Your task to perform on an android device: Search for razer huntsman on ebay.com, select the first entry, and add it to the cart. Image 0: 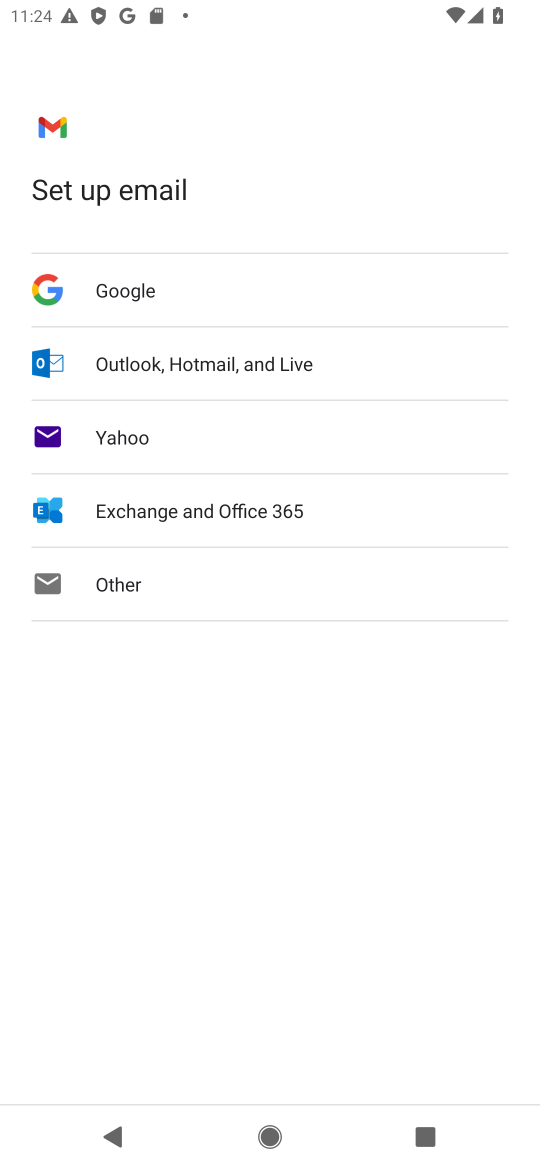
Step 0: press home button
Your task to perform on an android device: Search for razer huntsman on ebay.com, select the first entry, and add it to the cart. Image 1: 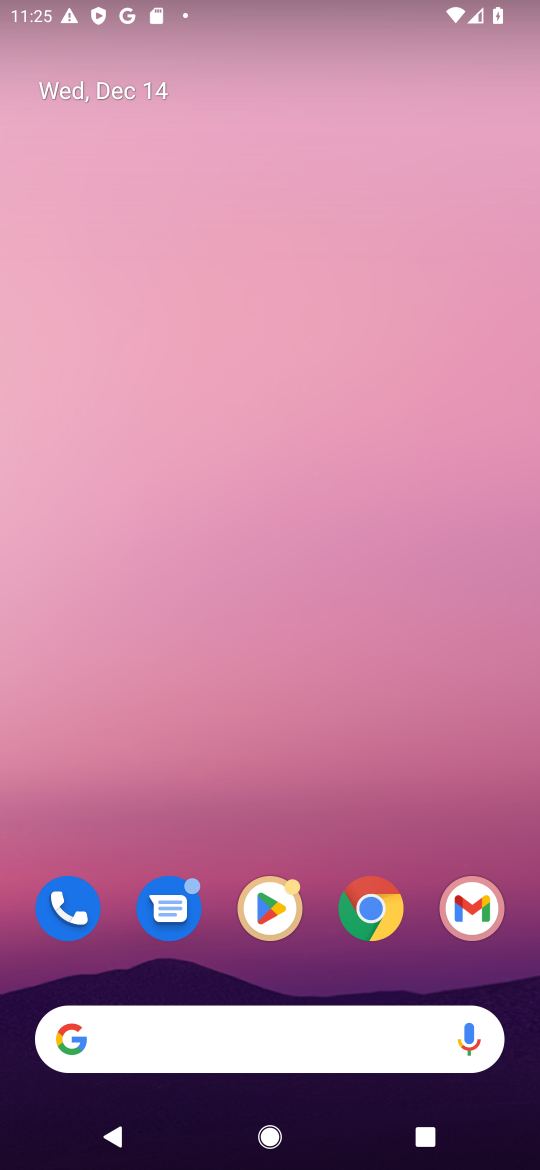
Step 1: click (382, 915)
Your task to perform on an android device: Search for razer huntsman on ebay.com, select the first entry, and add it to the cart. Image 2: 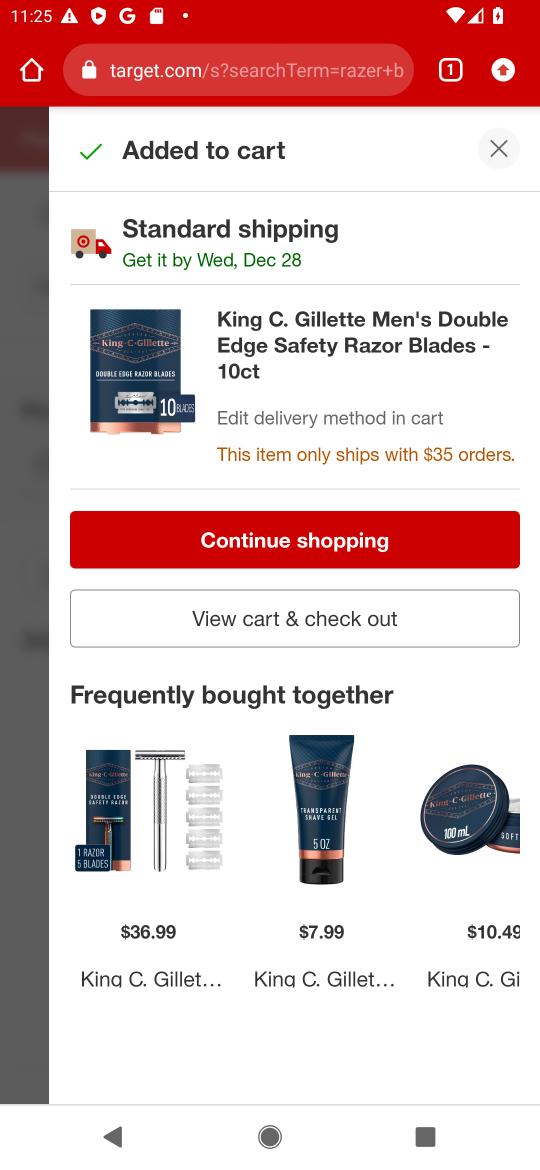
Step 2: click (252, 63)
Your task to perform on an android device: Search for razer huntsman on ebay.com, select the first entry, and add it to the cart. Image 3: 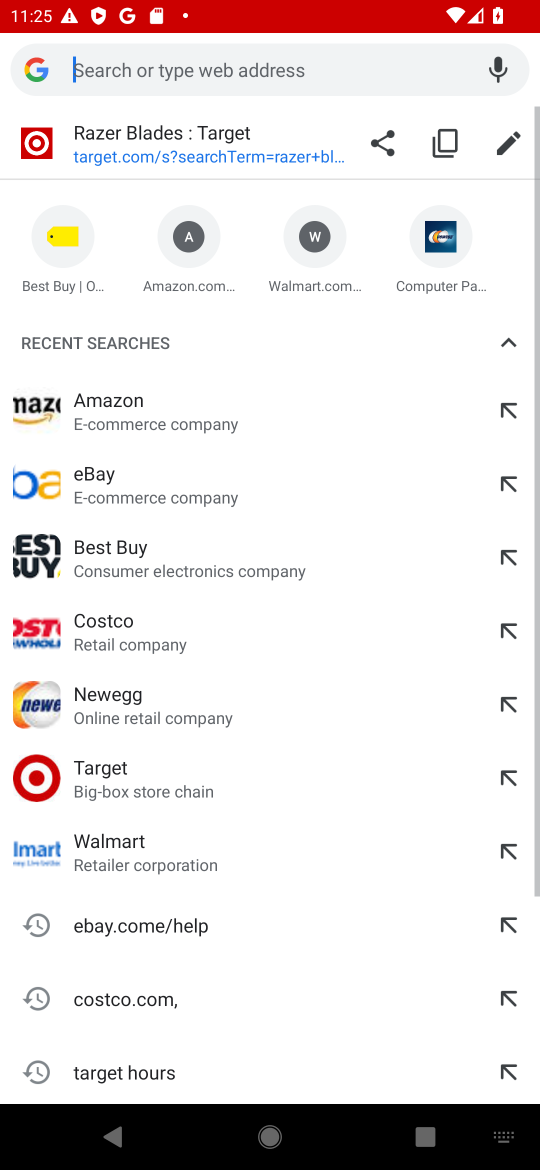
Step 3: click (148, 503)
Your task to perform on an android device: Search for razer huntsman on ebay.com, select the first entry, and add it to the cart. Image 4: 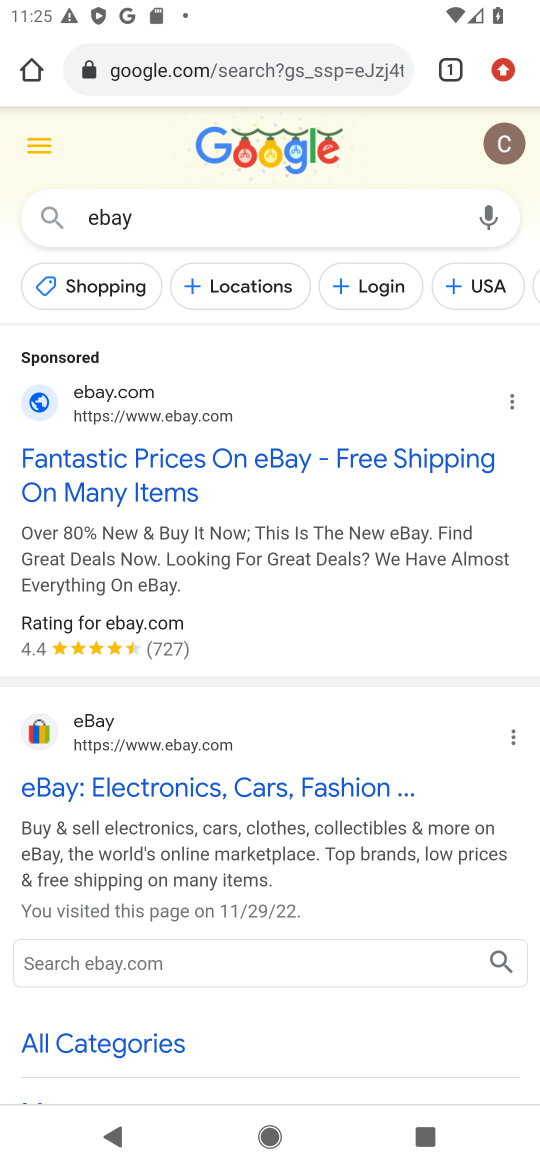
Step 4: click (83, 471)
Your task to perform on an android device: Search for razer huntsman on ebay.com, select the first entry, and add it to the cart. Image 5: 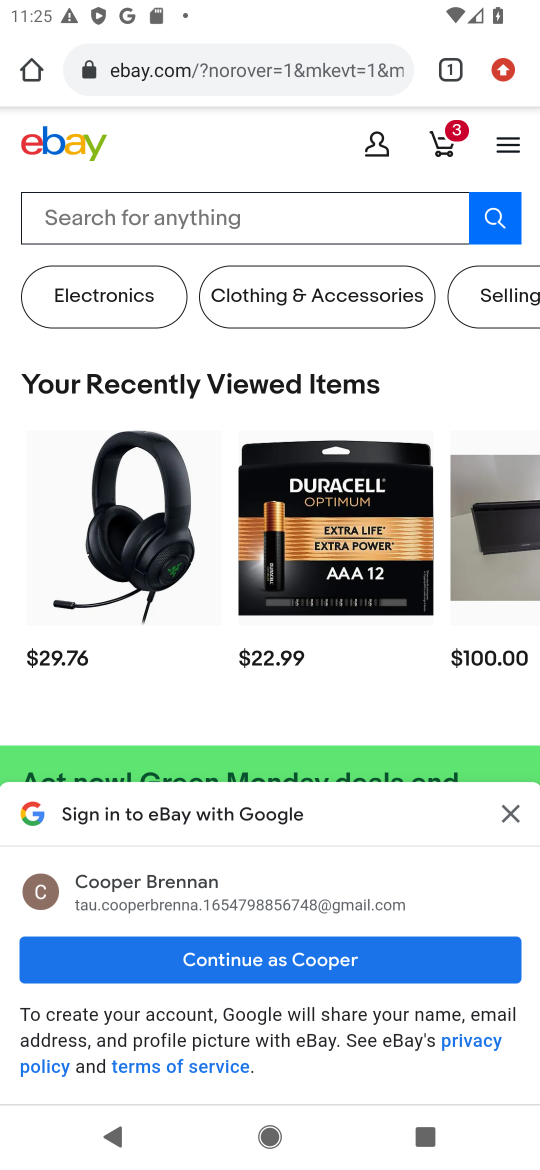
Step 5: click (232, 237)
Your task to perform on an android device: Search for razer huntsman on ebay.com, select the first entry, and add it to the cart. Image 6: 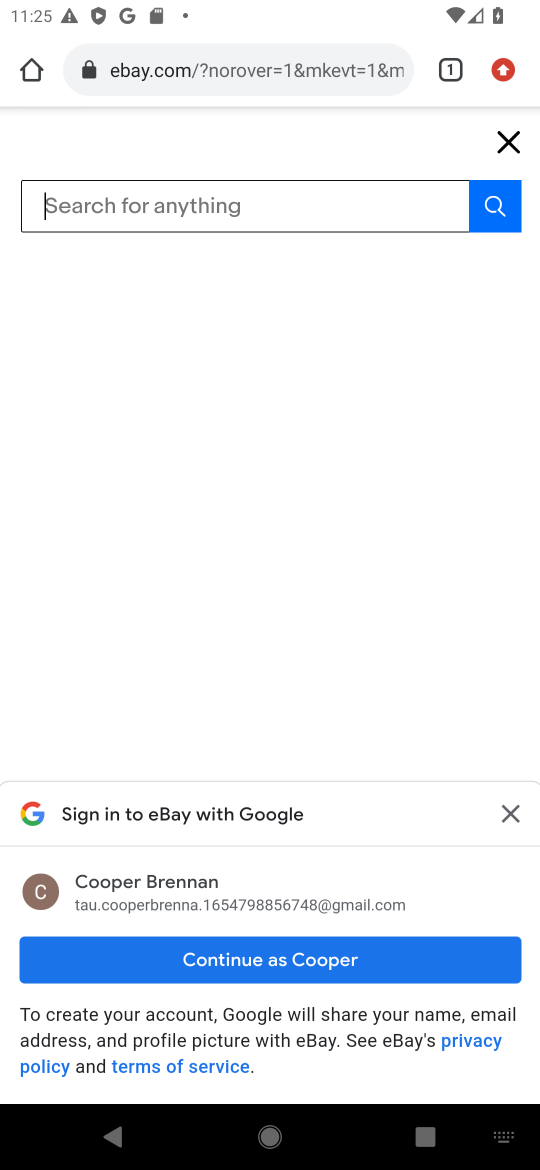
Step 6: type "razer huntsman"
Your task to perform on an android device: Search for razer huntsman on ebay.com, select the first entry, and add it to the cart. Image 7: 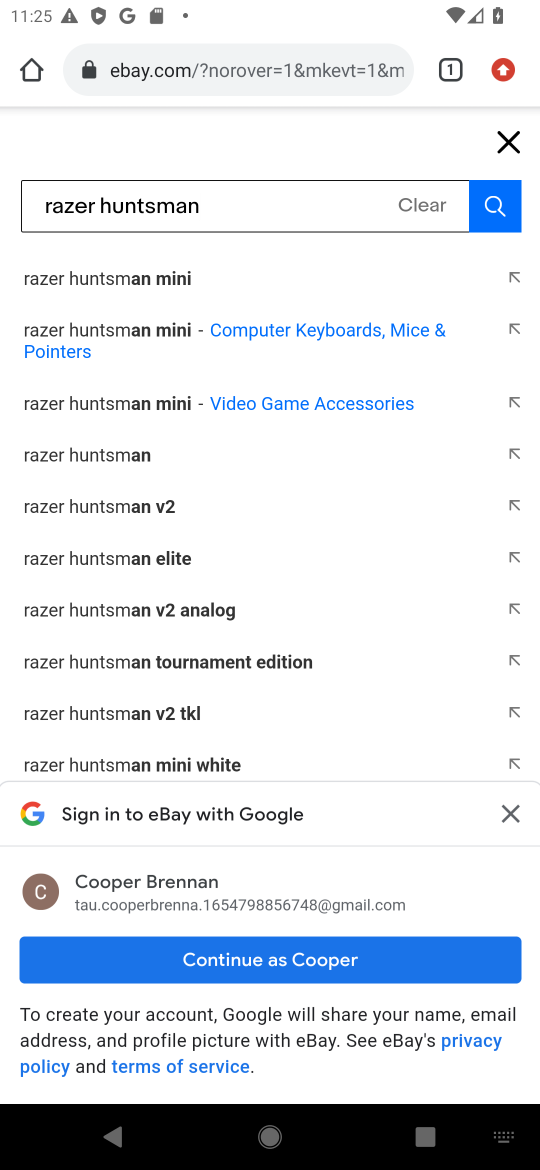
Step 7: click (491, 223)
Your task to perform on an android device: Search for razer huntsman on ebay.com, select the first entry, and add it to the cart. Image 8: 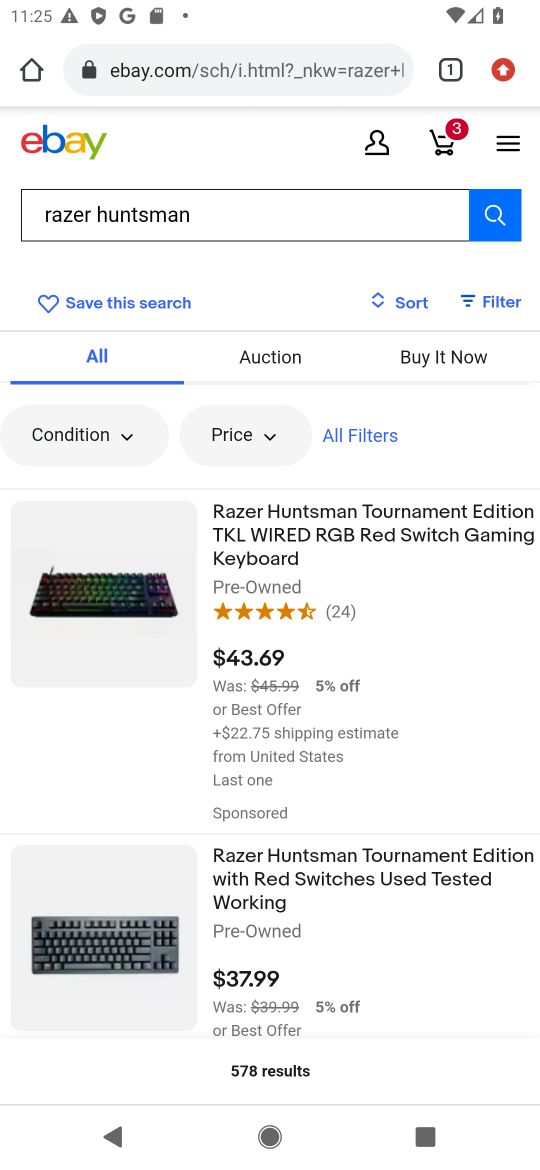
Step 8: click (409, 546)
Your task to perform on an android device: Search for razer huntsman on ebay.com, select the first entry, and add it to the cart. Image 9: 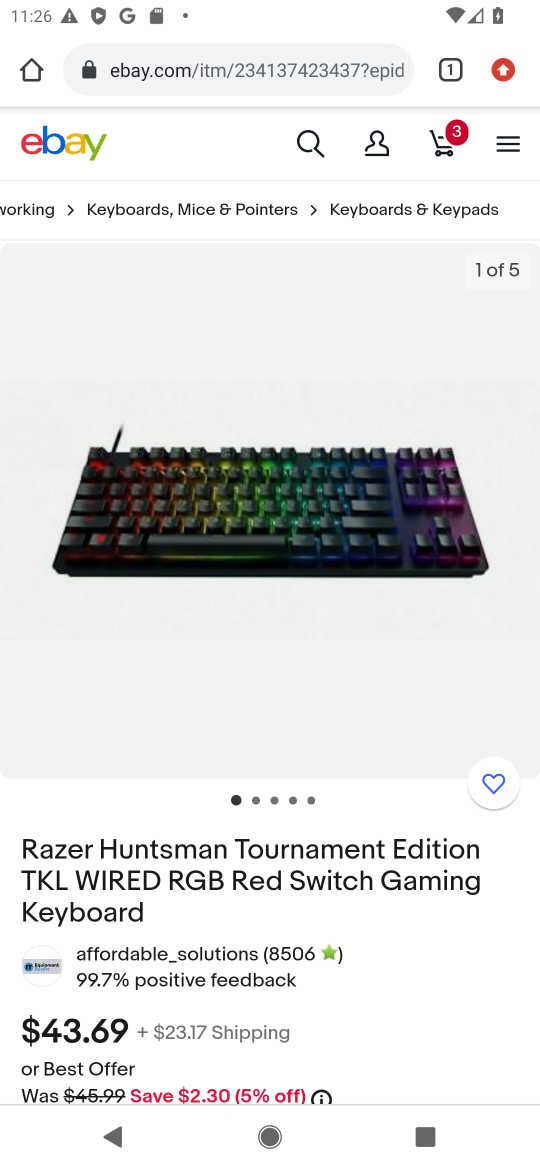
Step 9: drag from (330, 951) to (283, 254)
Your task to perform on an android device: Search for razer huntsman on ebay.com, select the first entry, and add it to the cart. Image 10: 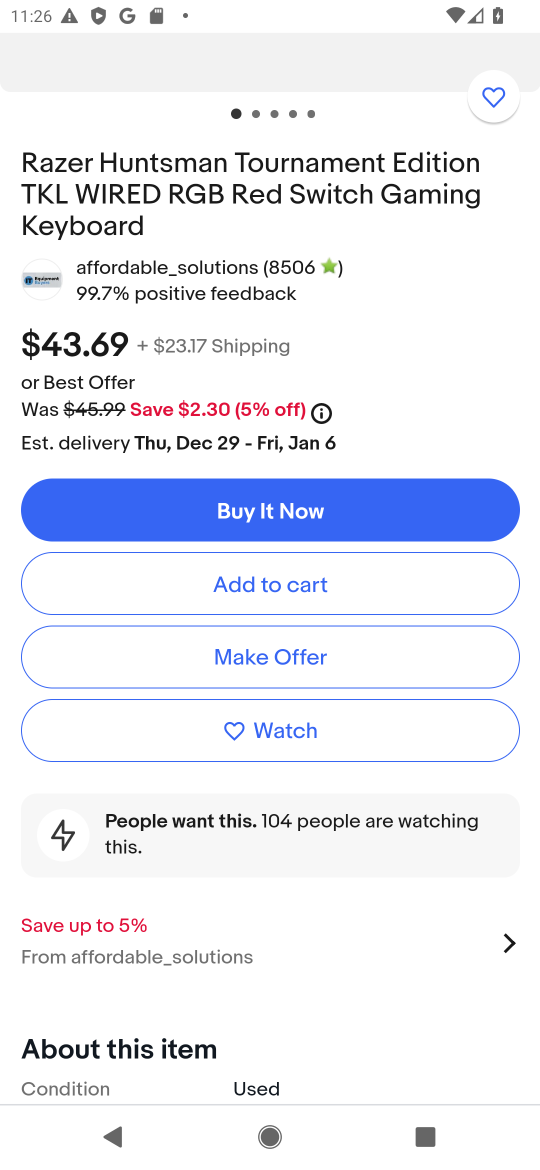
Step 10: click (329, 601)
Your task to perform on an android device: Search for razer huntsman on ebay.com, select the first entry, and add it to the cart. Image 11: 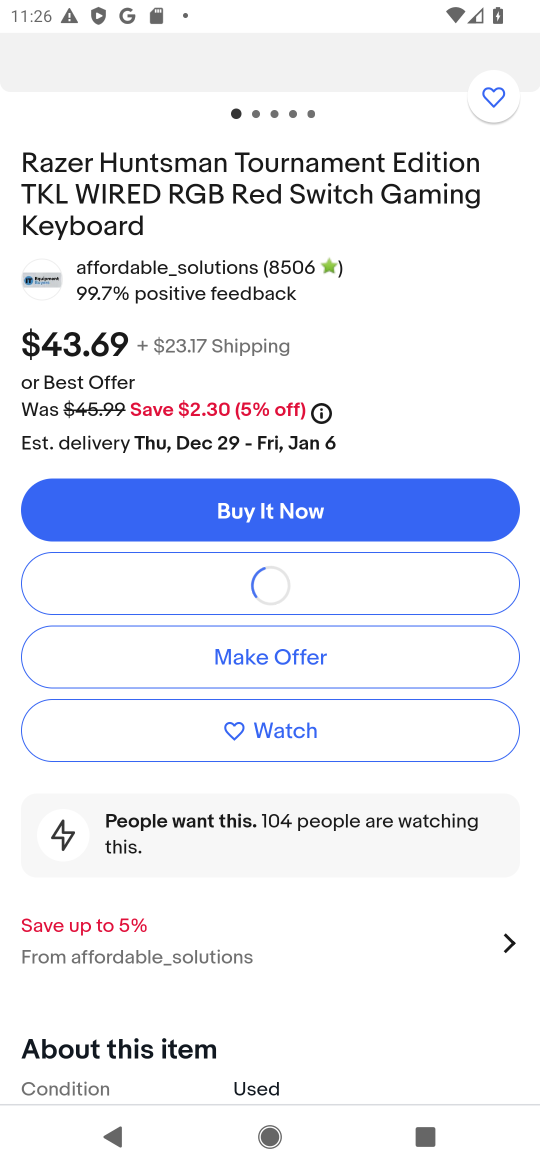
Step 11: task complete